Your task to perform on an android device: Go to privacy settings Image 0: 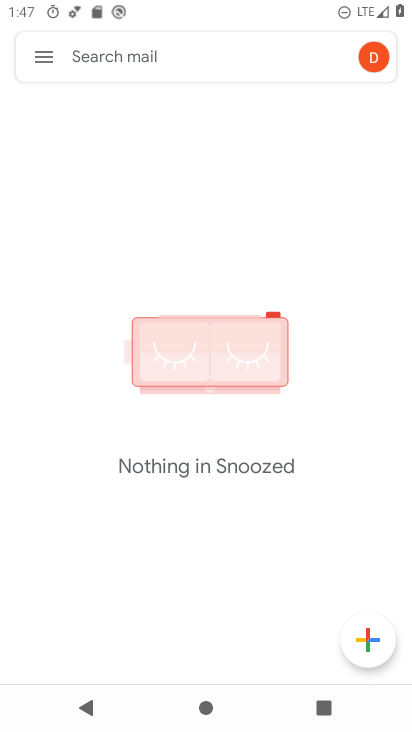
Step 0: press home button
Your task to perform on an android device: Go to privacy settings Image 1: 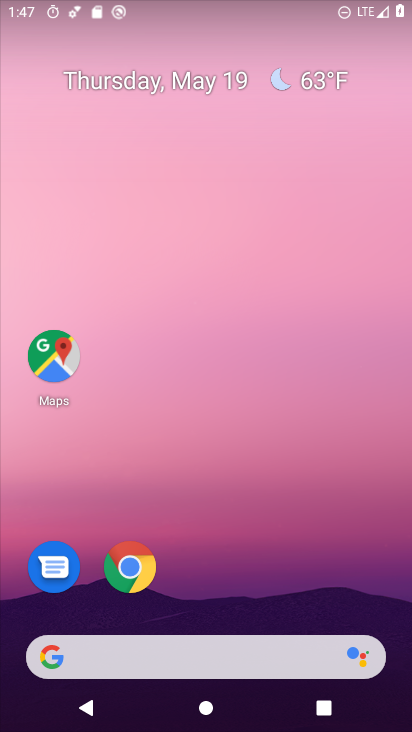
Step 1: drag from (152, 657) to (259, 267)
Your task to perform on an android device: Go to privacy settings Image 2: 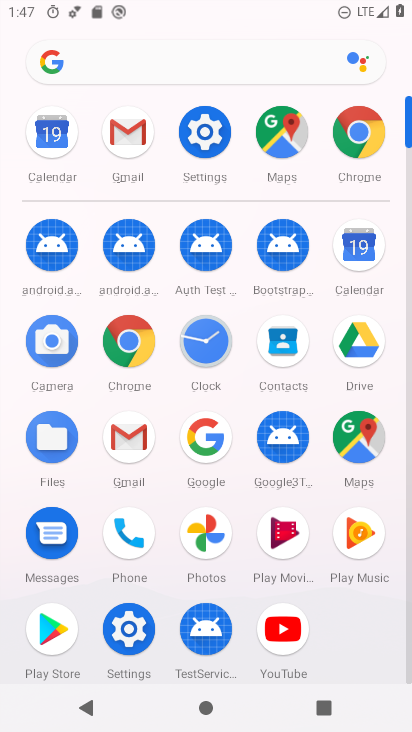
Step 2: click (214, 138)
Your task to perform on an android device: Go to privacy settings Image 3: 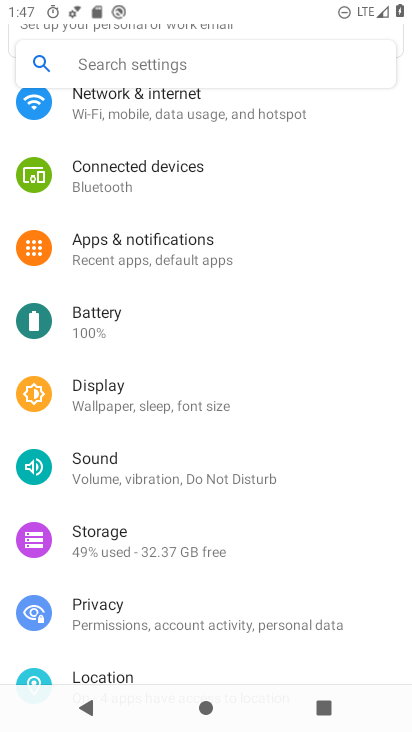
Step 3: click (121, 614)
Your task to perform on an android device: Go to privacy settings Image 4: 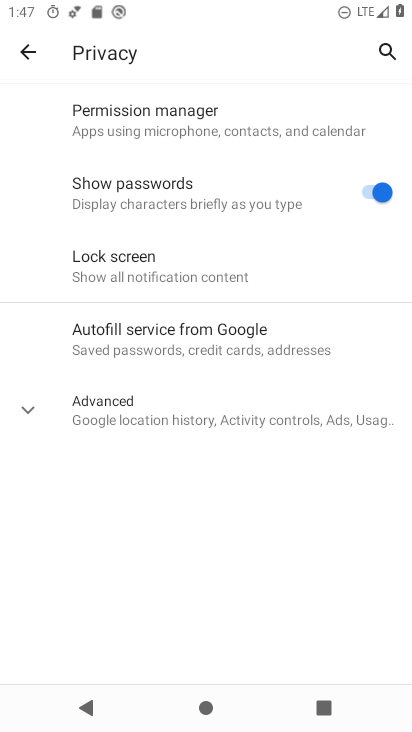
Step 4: task complete